Your task to perform on an android device: Go to Google Image 0: 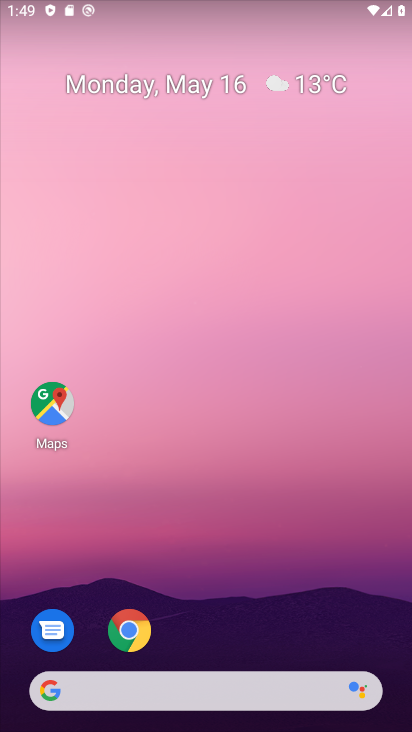
Step 0: drag from (209, 577) to (232, 266)
Your task to perform on an android device: Go to Google Image 1: 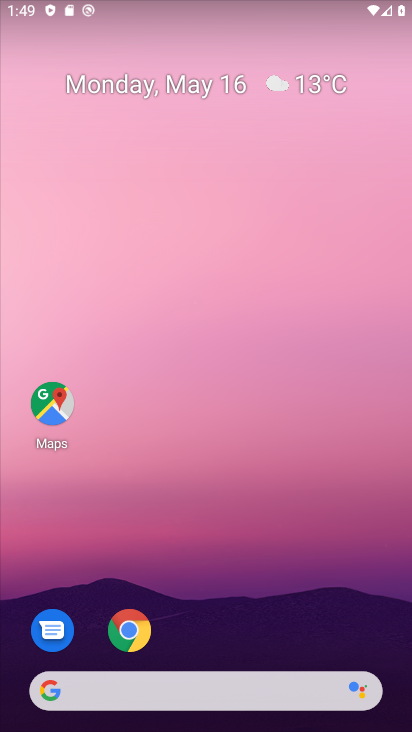
Step 1: drag from (250, 560) to (257, 149)
Your task to perform on an android device: Go to Google Image 2: 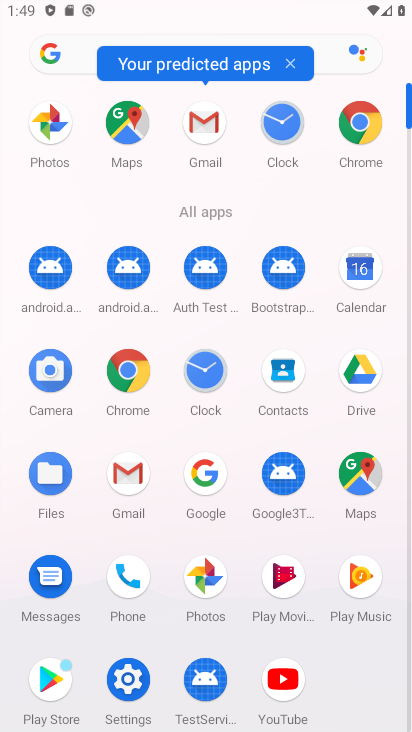
Step 2: click (214, 475)
Your task to perform on an android device: Go to Google Image 3: 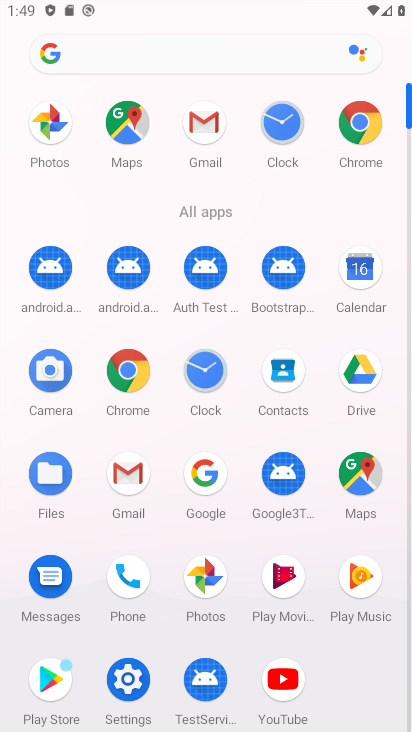
Step 3: task complete